Your task to perform on an android device: create a new album in the google photos Image 0: 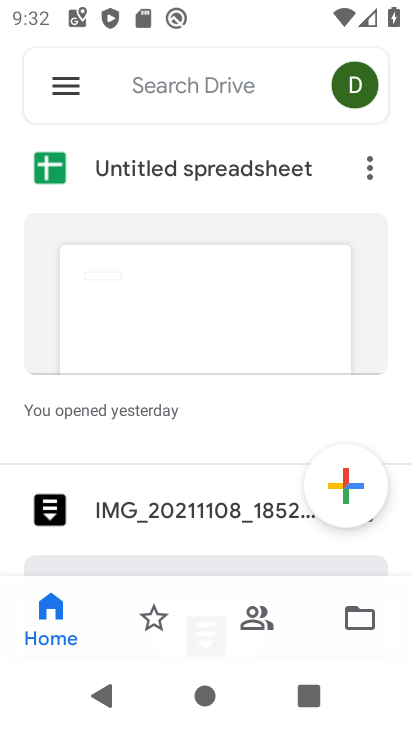
Step 0: press home button
Your task to perform on an android device: create a new album in the google photos Image 1: 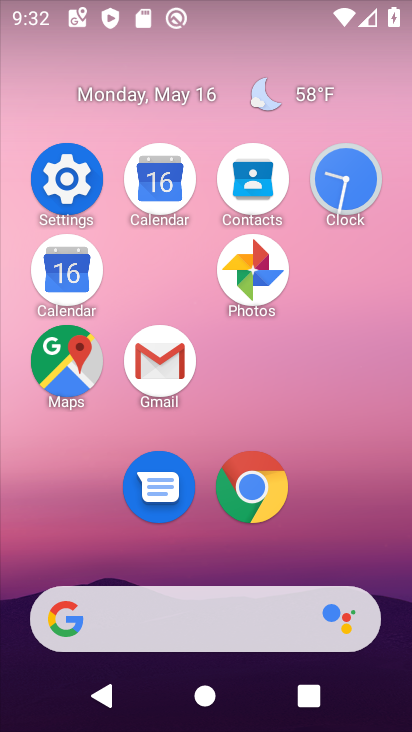
Step 1: click (267, 261)
Your task to perform on an android device: create a new album in the google photos Image 2: 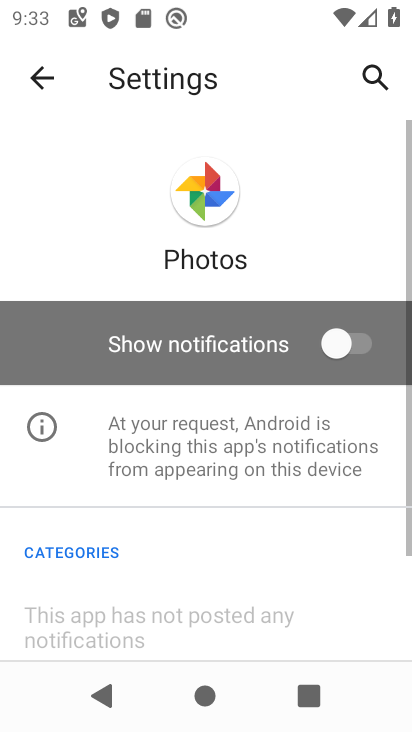
Step 2: click (23, 84)
Your task to perform on an android device: create a new album in the google photos Image 3: 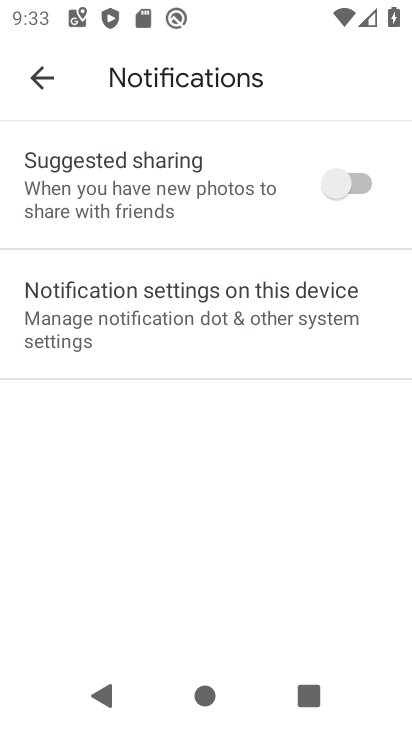
Step 3: click (19, 62)
Your task to perform on an android device: create a new album in the google photos Image 4: 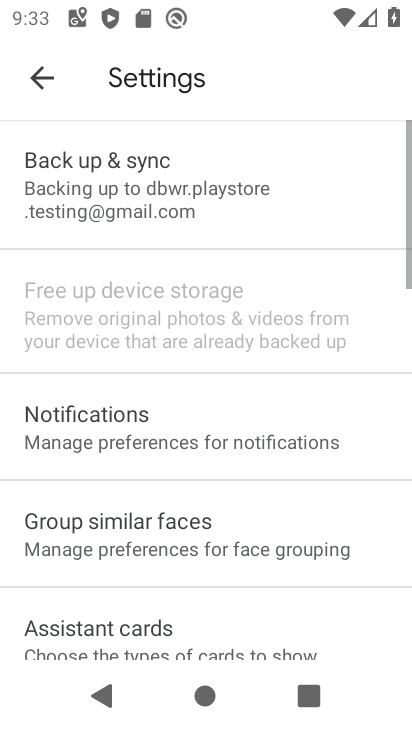
Step 4: click (41, 84)
Your task to perform on an android device: create a new album in the google photos Image 5: 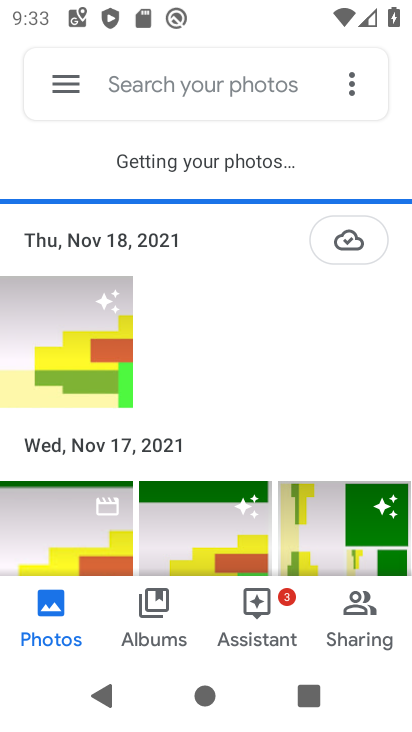
Step 5: click (169, 605)
Your task to perform on an android device: create a new album in the google photos Image 6: 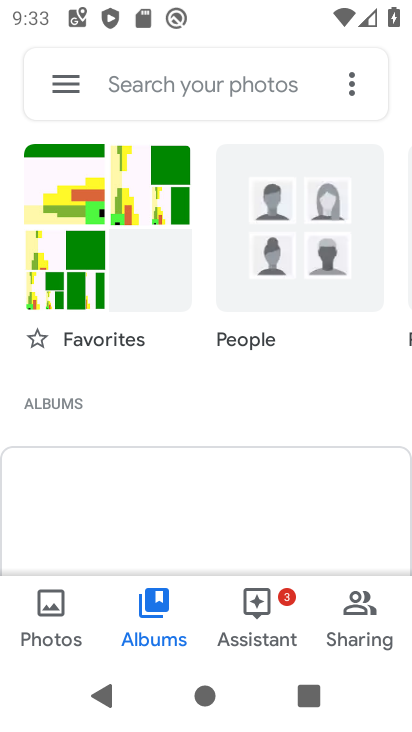
Step 6: drag from (153, 481) to (165, 125)
Your task to perform on an android device: create a new album in the google photos Image 7: 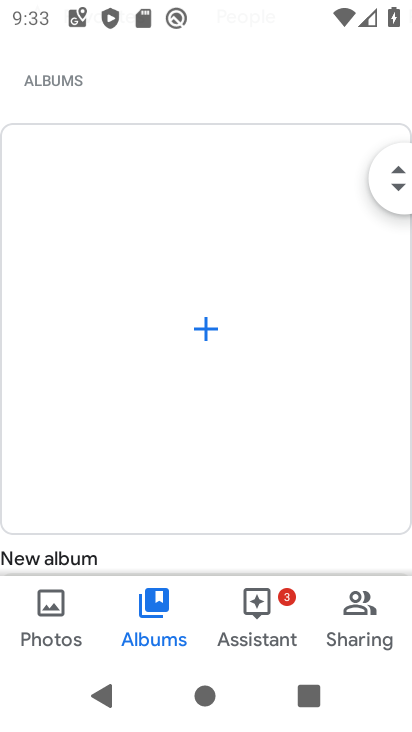
Step 7: click (200, 349)
Your task to perform on an android device: create a new album in the google photos Image 8: 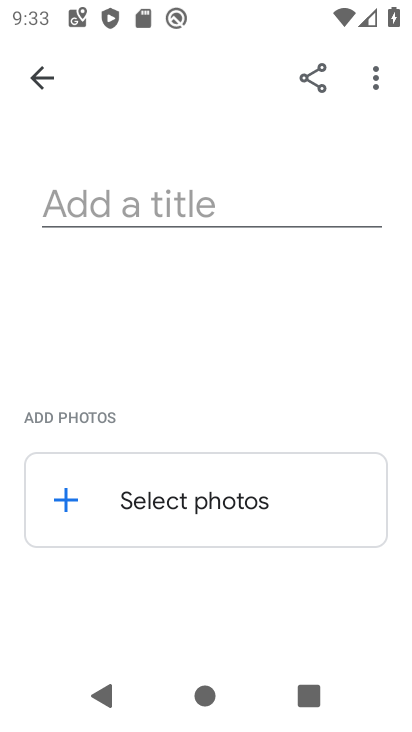
Step 8: click (185, 211)
Your task to perform on an android device: create a new album in the google photos Image 9: 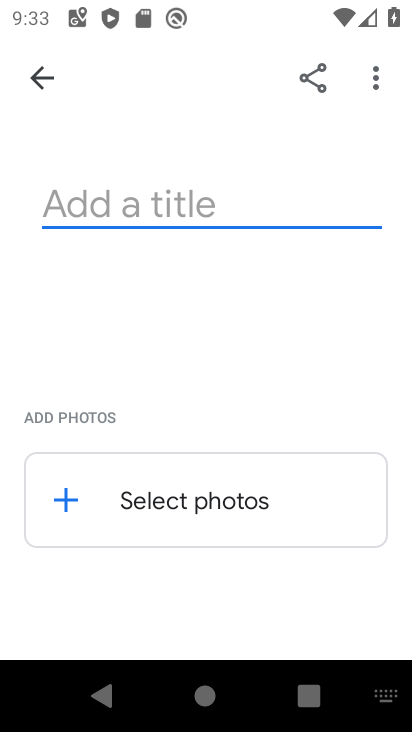
Step 9: type "bb"
Your task to perform on an android device: create a new album in the google photos Image 10: 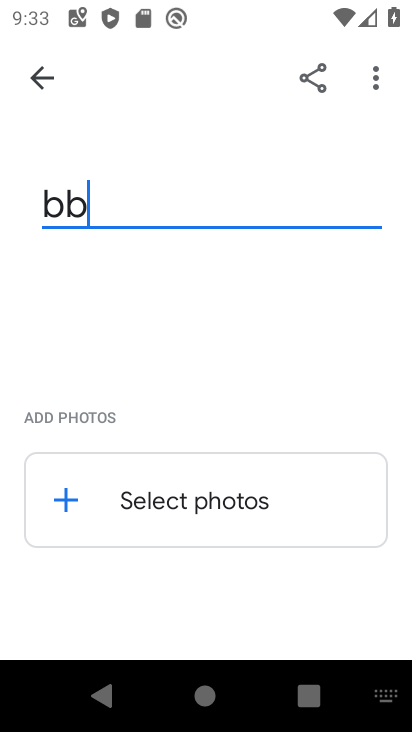
Step 10: click (146, 480)
Your task to perform on an android device: create a new album in the google photos Image 11: 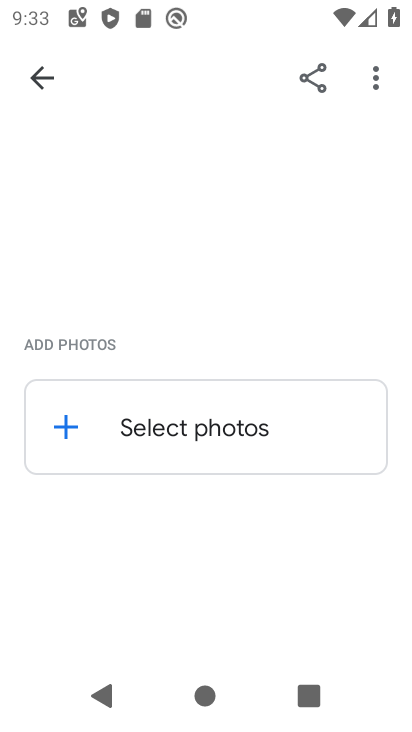
Step 11: click (216, 409)
Your task to perform on an android device: create a new album in the google photos Image 12: 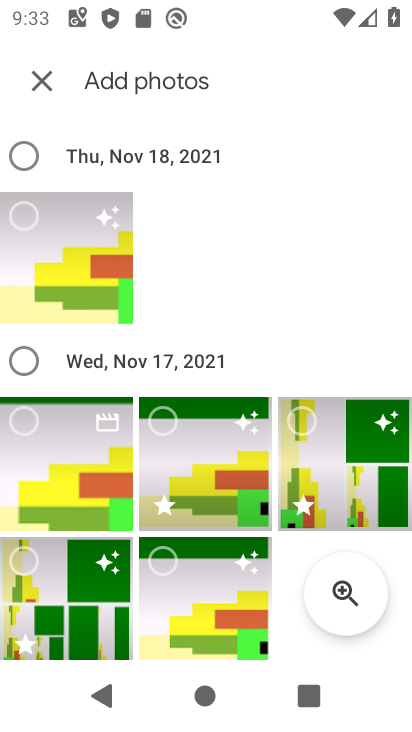
Step 12: click (31, 423)
Your task to perform on an android device: create a new album in the google photos Image 13: 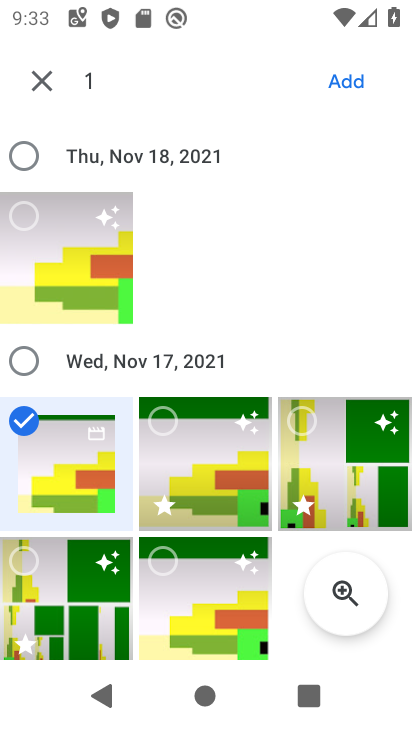
Step 13: click (176, 418)
Your task to perform on an android device: create a new album in the google photos Image 14: 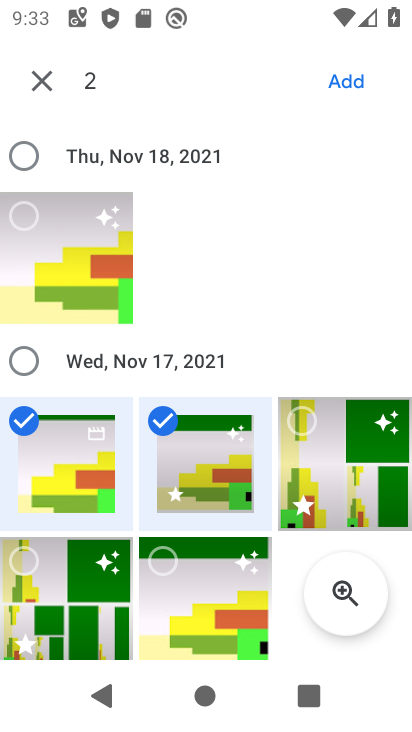
Step 14: click (347, 79)
Your task to perform on an android device: create a new album in the google photos Image 15: 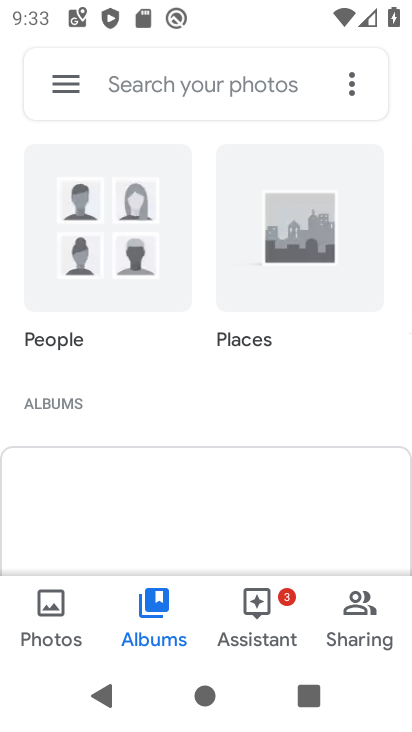
Step 15: task complete